Your task to perform on an android device: toggle location history Image 0: 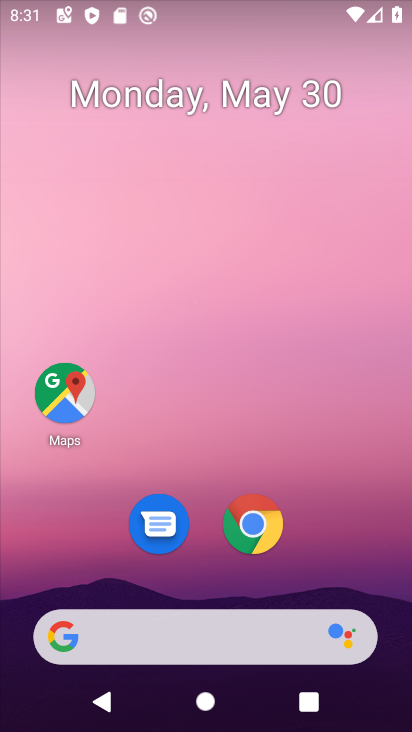
Step 0: drag from (195, 449) to (228, 1)
Your task to perform on an android device: toggle location history Image 1: 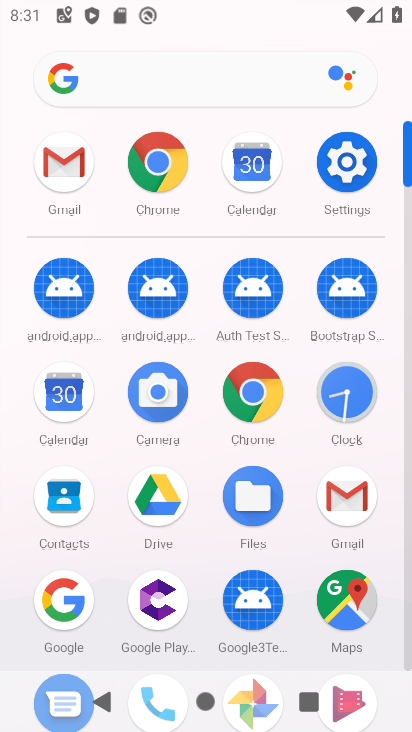
Step 1: click (342, 156)
Your task to perform on an android device: toggle location history Image 2: 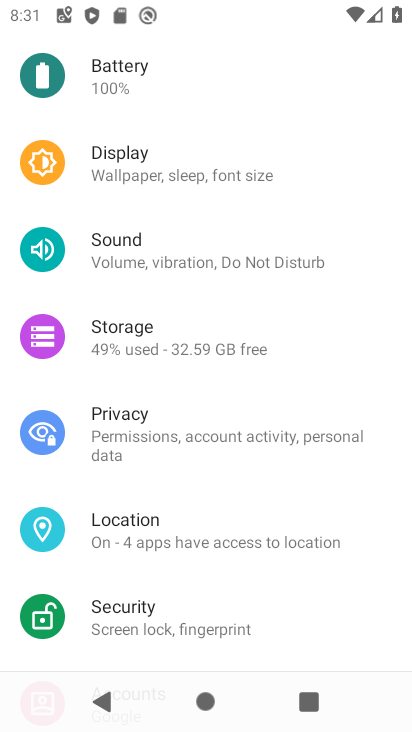
Step 2: click (214, 527)
Your task to perform on an android device: toggle location history Image 3: 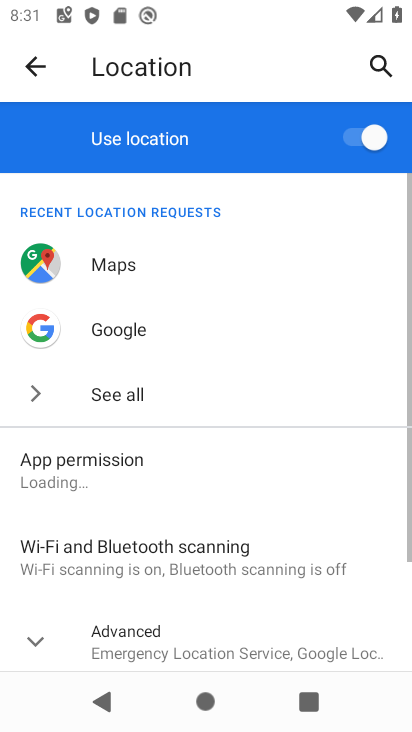
Step 3: drag from (249, 417) to (278, 144)
Your task to perform on an android device: toggle location history Image 4: 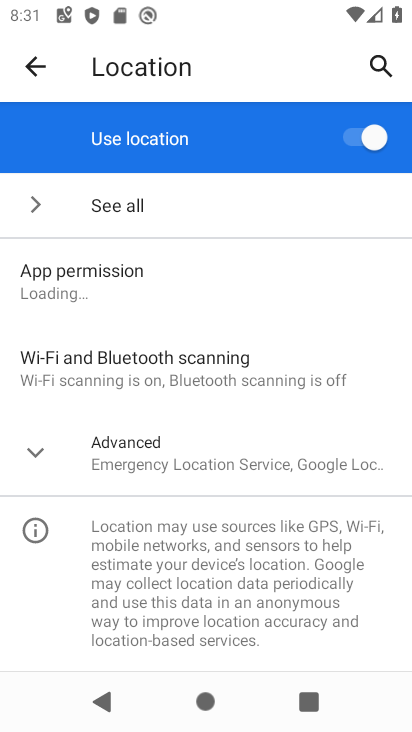
Step 4: click (33, 446)
Your task to perform on an android device: toggle location history Image 5: 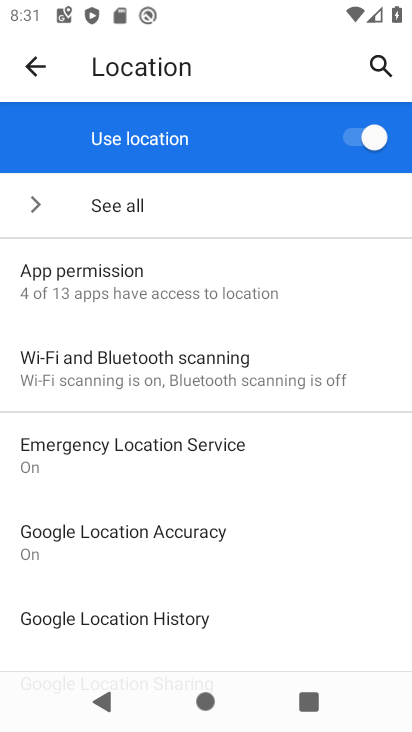
Step 5: click (140, 614)
Your task to perform on an android device: toggle location history Image 6: 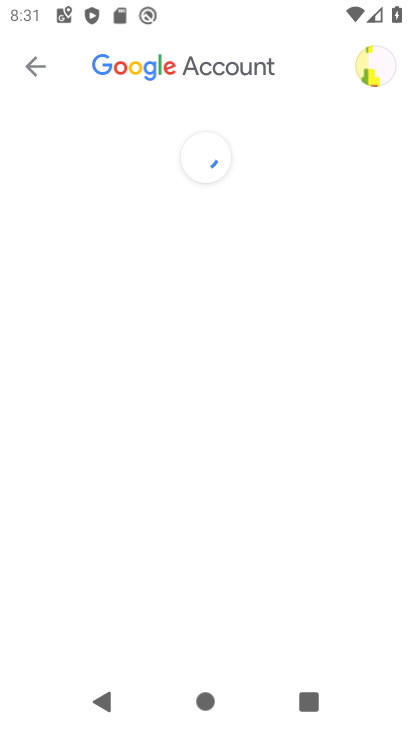
Step 6: drag from (283, 507) to (333, 113)
Your task to perform on an android device: toggle location history Image 7: 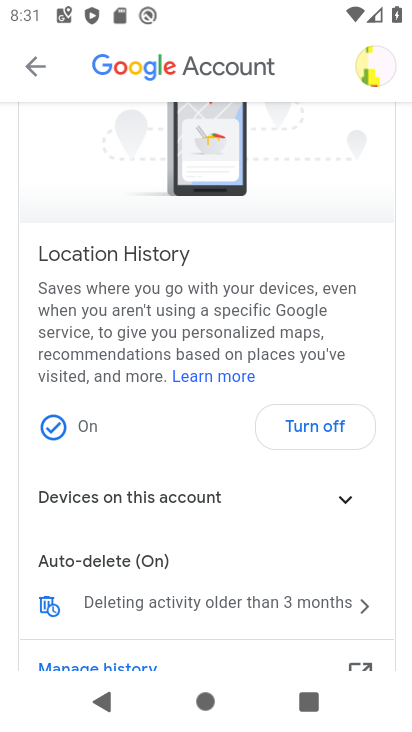
Step 7: click (313, 425)
Your task to perform on an android device: toggle location history Image 8: 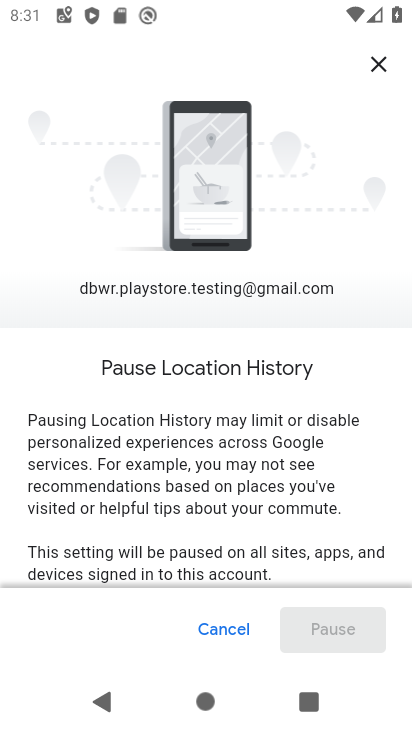
Step 8: drag from (235, 510) to (290, 0)
Your task to perform on an android device: toggle location history Image 9: 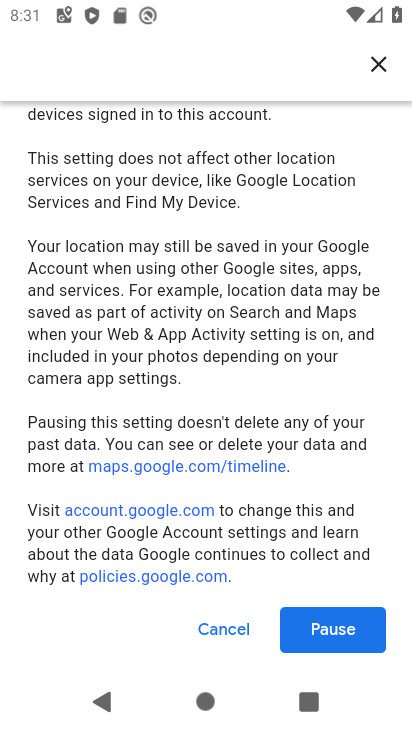
Step 9: click (334, 637)
Your task to perform on an android device: toggle location history Image 10: 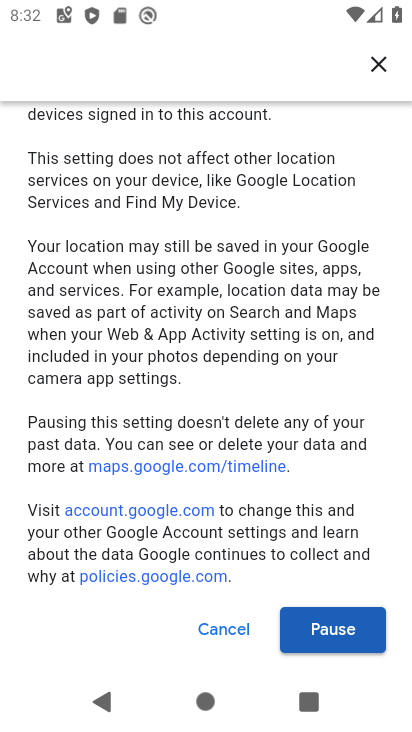
Step 10: click (334, 634)
Your task to perform on an android device: toggle location history Image 11: 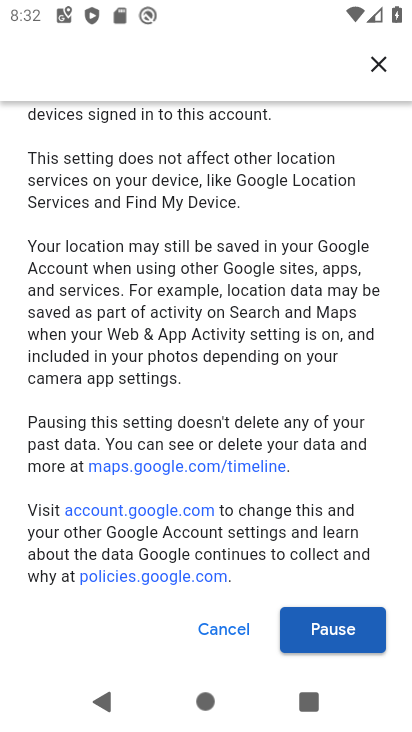
Step 11: click (334, 634)
Your task to perform on an android device: toggle location history Image 12: 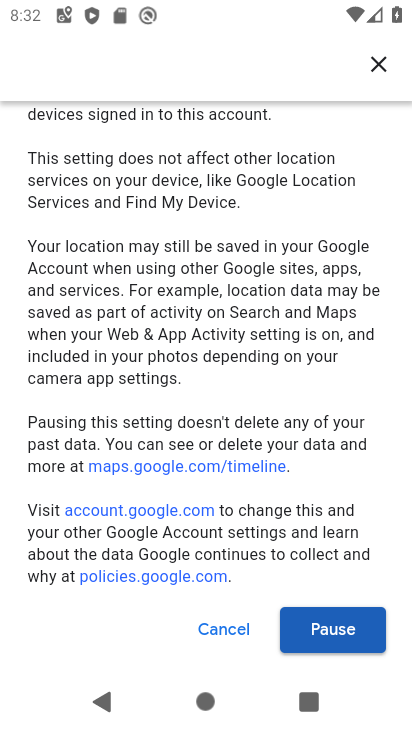
Step 12: click (347, 630)
Your task to perform on an android device: toggle location history Image 13: 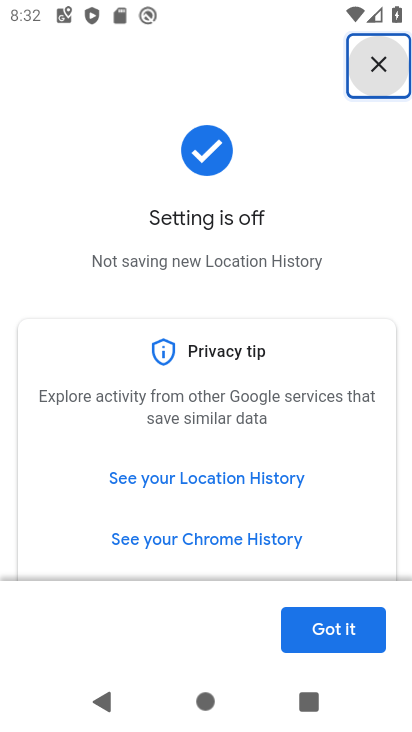
Step 13: click (344, 628)
Your task to perform on an android device: toggle location history Image 14: 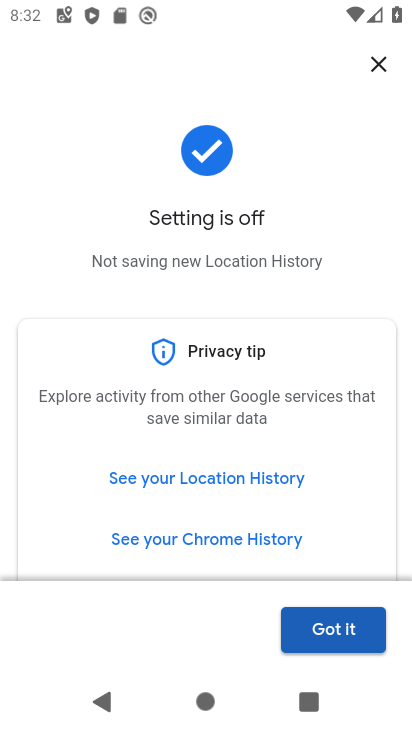
Step 14: click (344, 628)
Your task to perform on an android device: toggle location history Image 15: 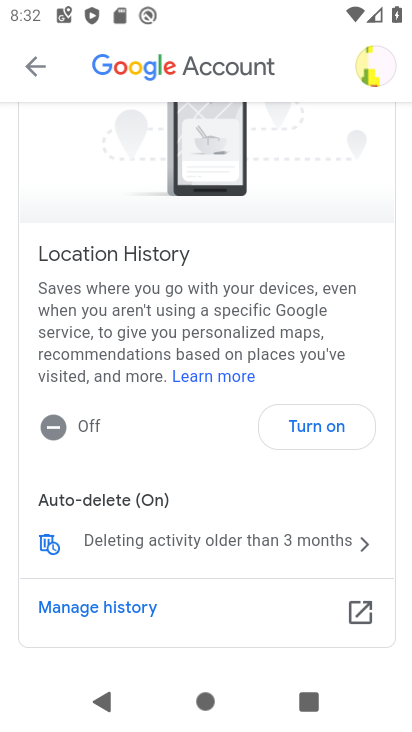
Step 15: task complete